Your task to perform on an android device: open sync settings in chrome Image 0: 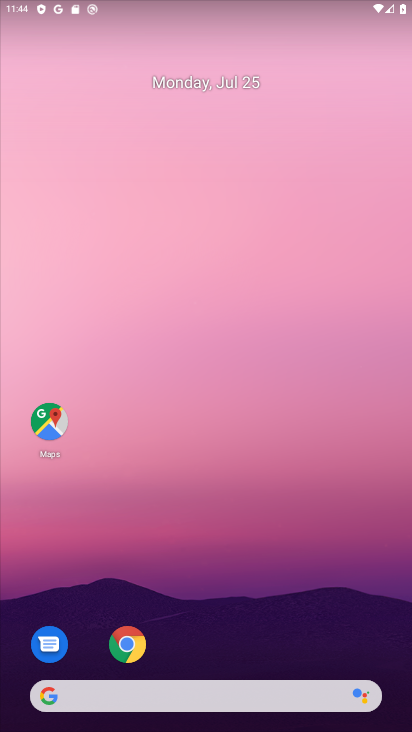
Step 0: click (132, 645)
Your task to perform on an android device: open sync settings in chrome Image 1: 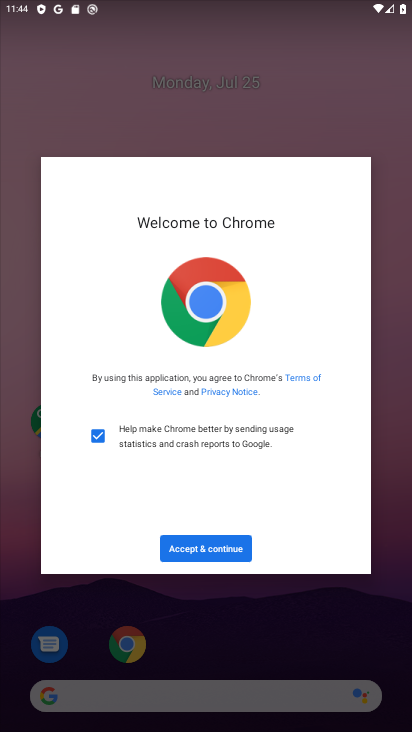
Step 1: click (210, 548)
Your task to perform on an android device: open sync settings in chrome Image 2: 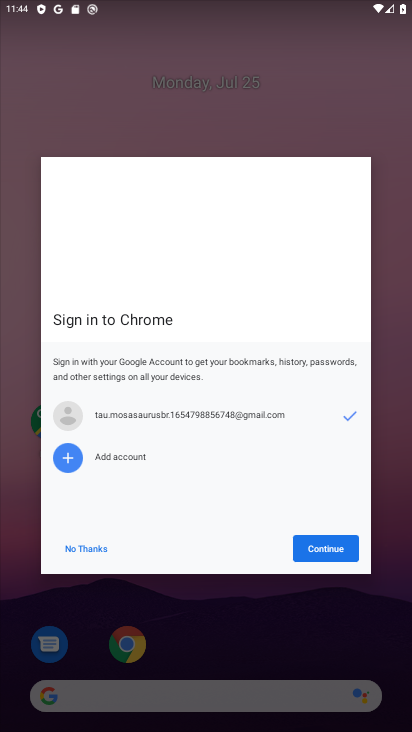
Step 2: click (97, 555)
Your task to perform on an android device: open sync settings in chrome Image 3: 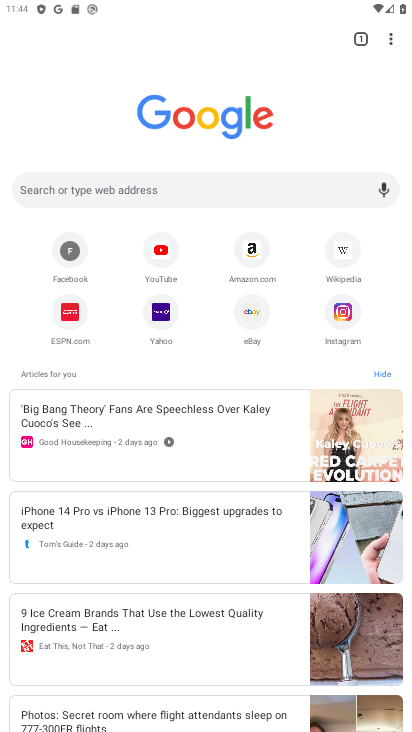
Step 3: click (393, 44)
Your task to perform on an android device: open sync settings in chrome Image 4: 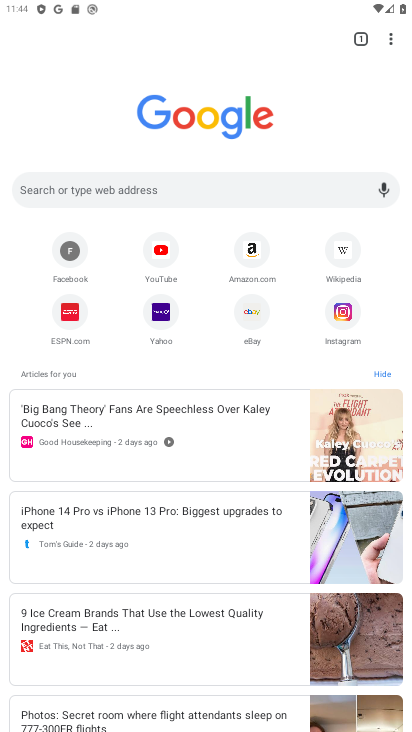
Step 4: drag from (393, 44) to (252, 335)
Your task to perform on an android device: open sync settings in chrome Image 5: 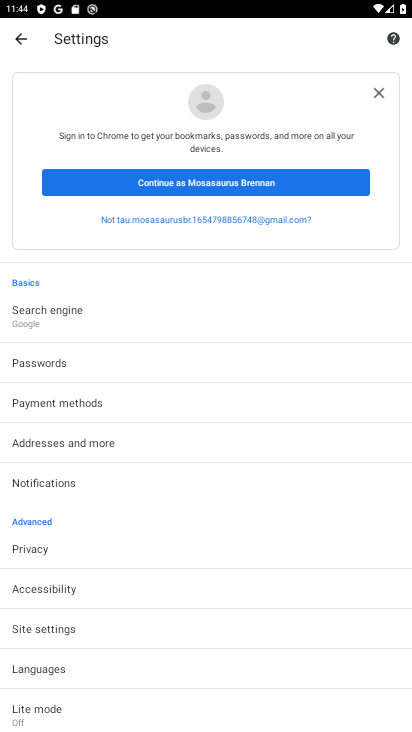
Step 5: click (157, 183)
Your task to perform on an android device: open sync settings in chrome Image 6: 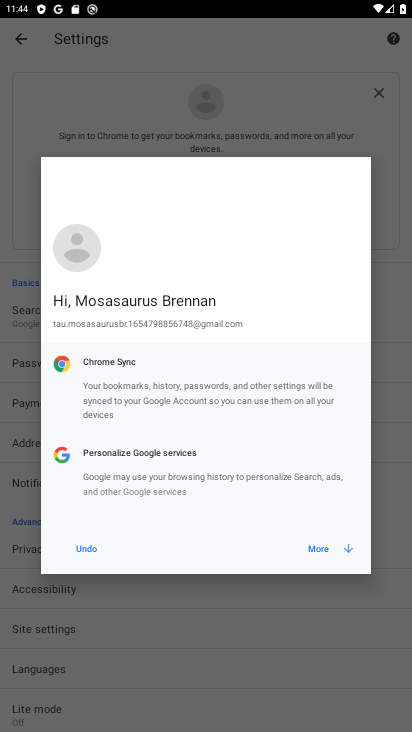
Step 6: click (310, 557)
Your task to perform on an android device: open sync settings in chrome Image 7: 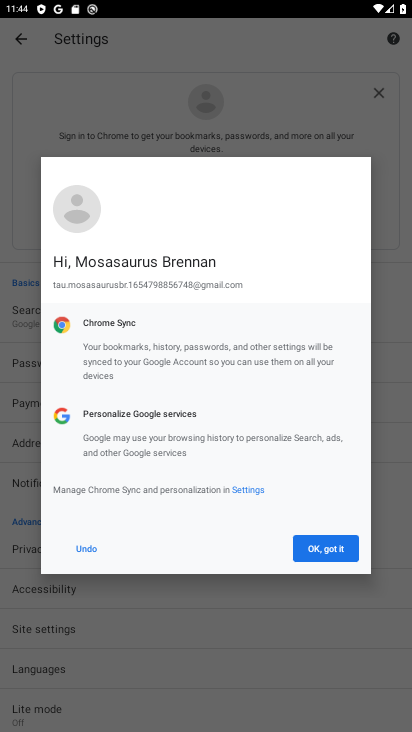
Step 7: click (313, 556)
Your task to perform on an android device: open sync settings in chrome Image 8: 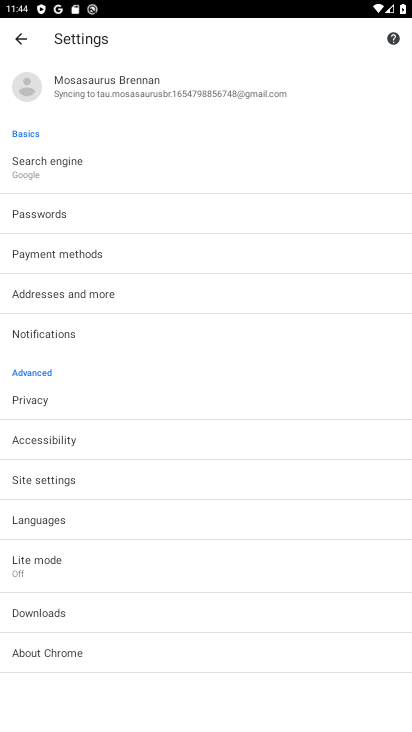
Step 8: click (109, 98)
Your task to perform on an android device: open sync settings in chrome Image 9: 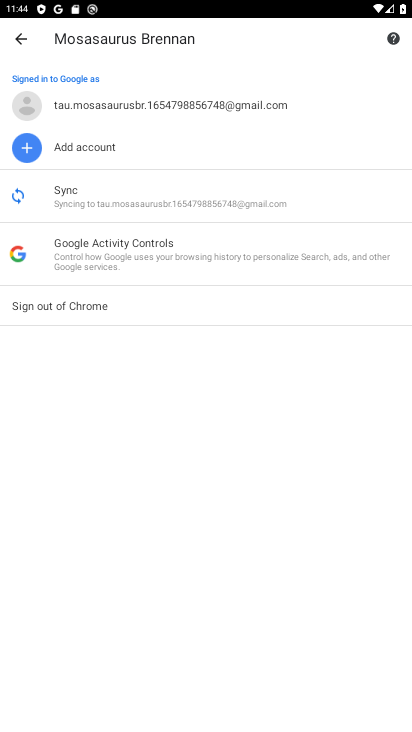
Step 9: click (93, 205)
Your task to perform on an android device: open sync settings in chrome Image 10: 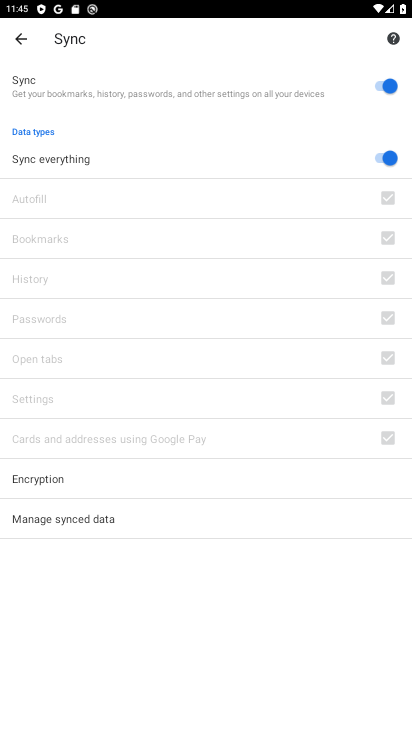
Step 10: task complete